Your task to perform on an android device: turn off translation in the chrome app Image 0: 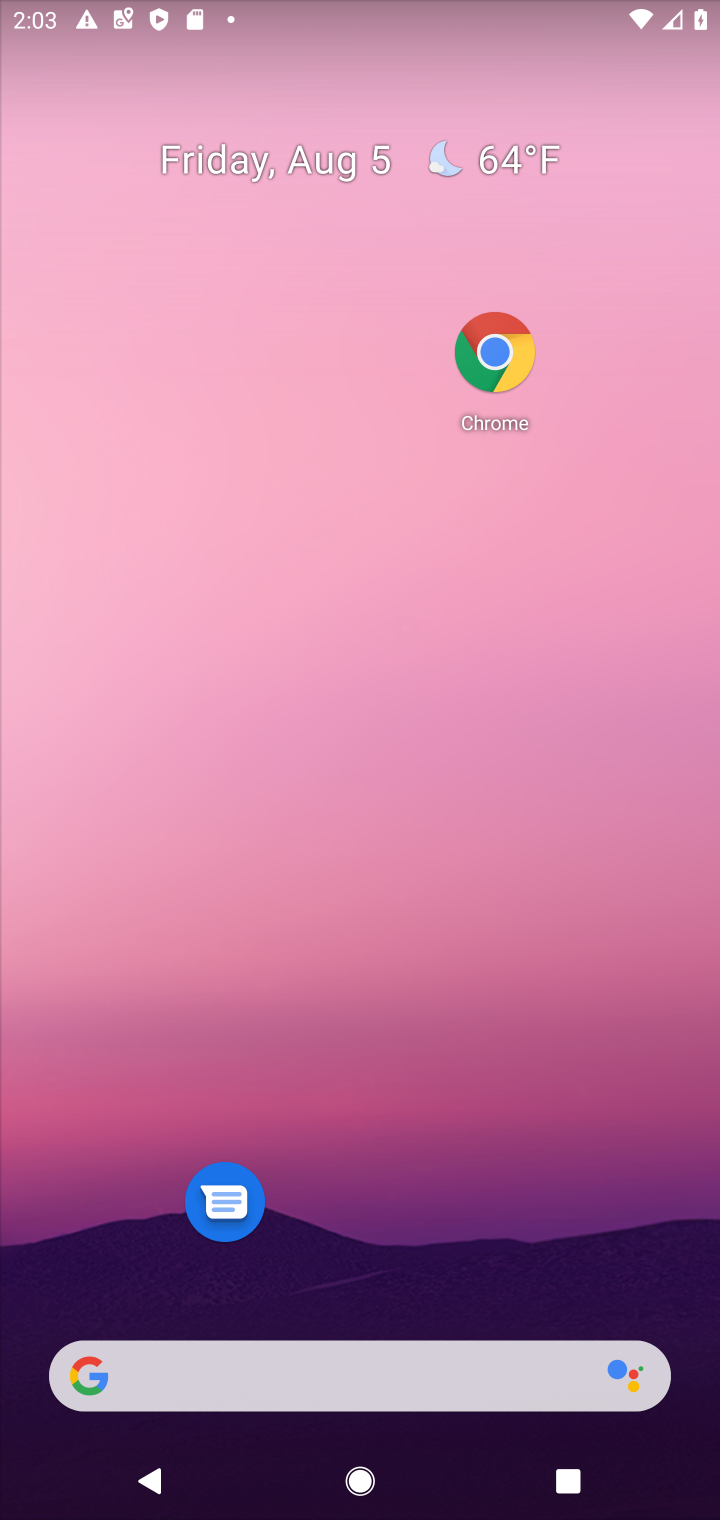
Step 0: drag from (615, 1207) to (425, 292)
Your task to perform on an android device: turn off translation in the chrome app Image 1: 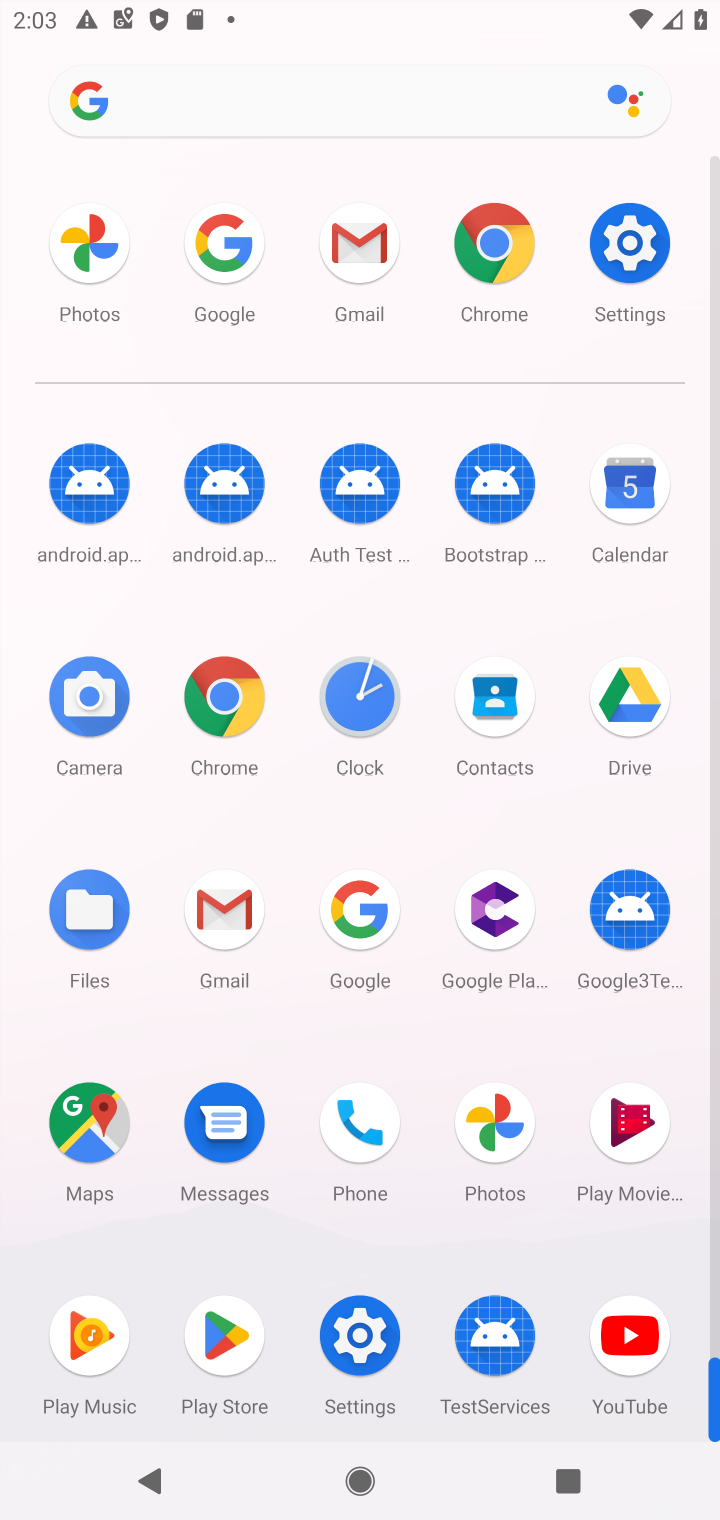
Step 1: click (217, 686)
Your task to perform on an android device: turn off translation in the chrome app Image 2: 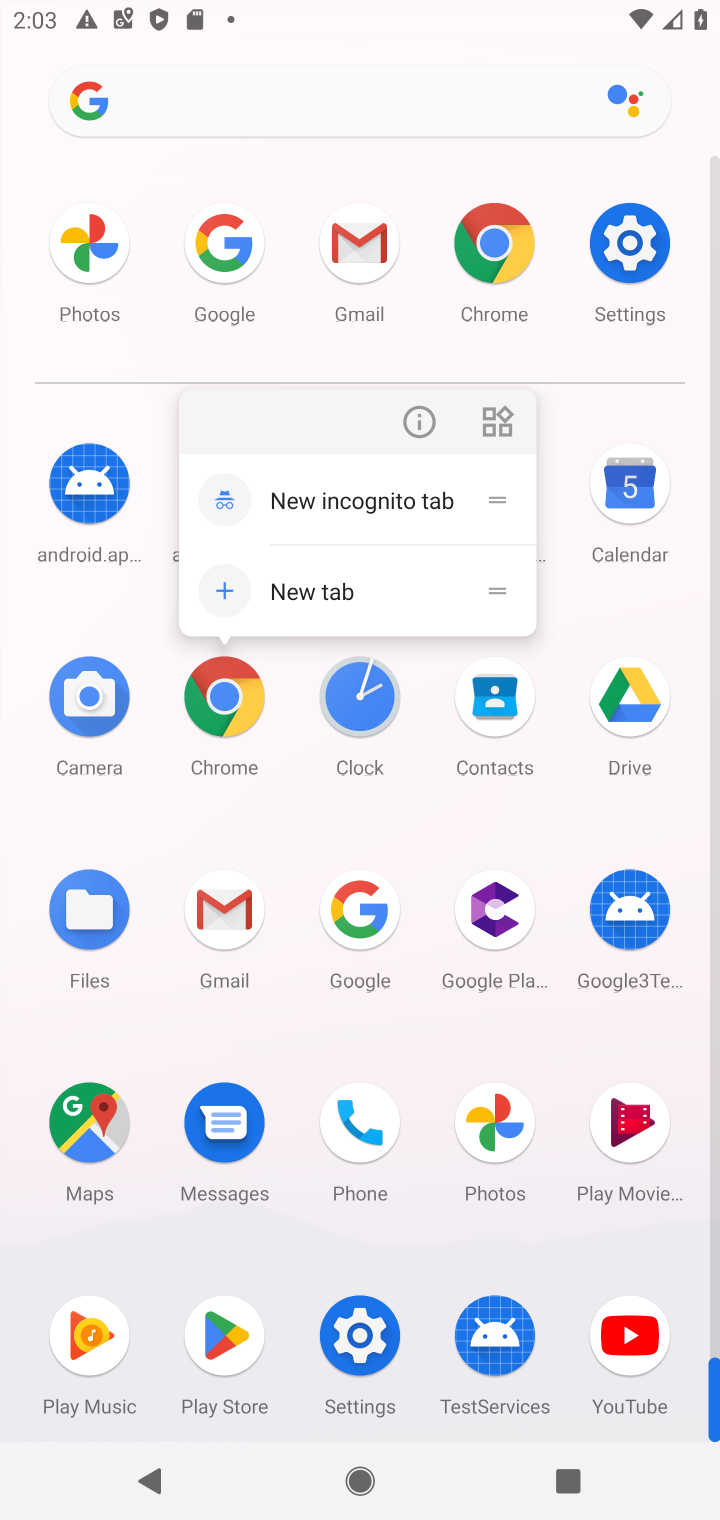
Step 2: click (228, 692)
Your task to perform on an android device: turn off translation in the chrome app Image 3: 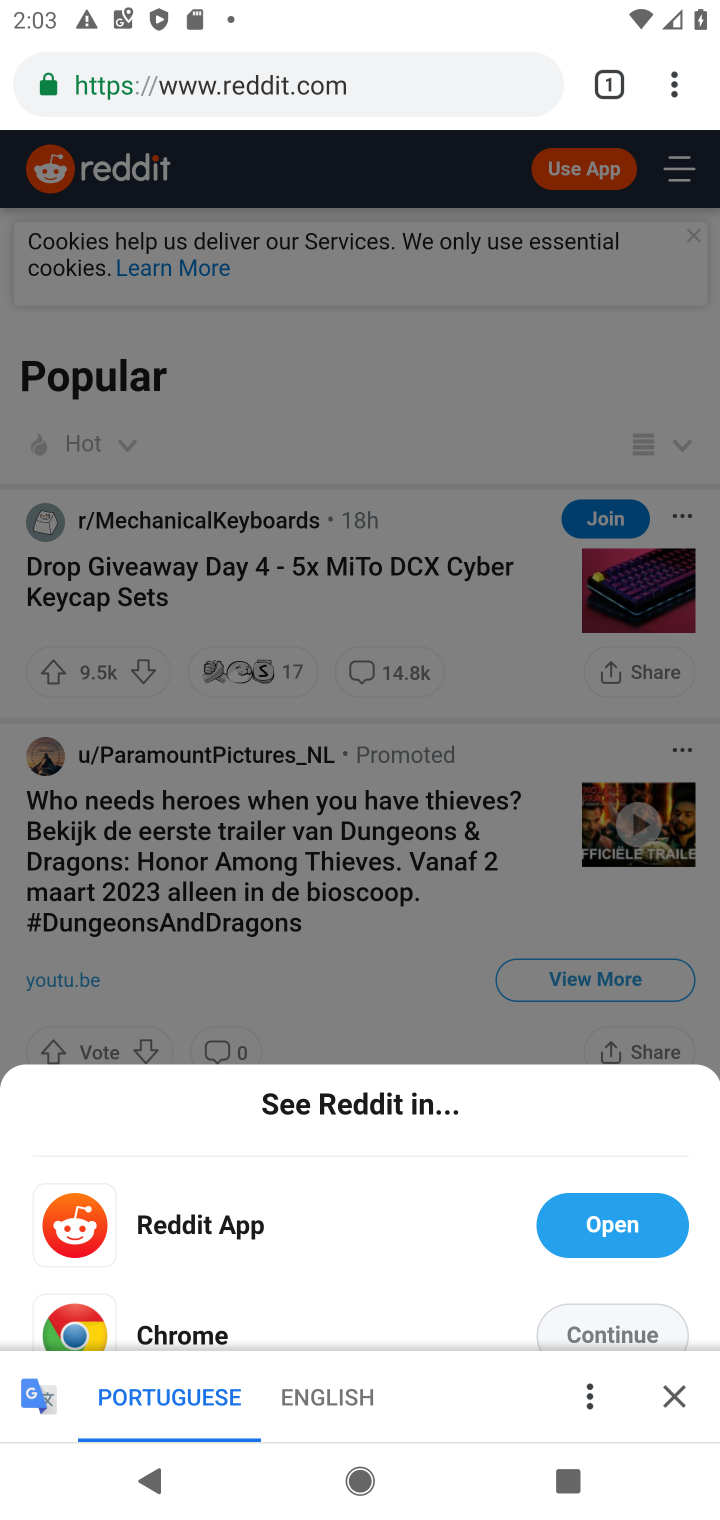
Step 3: drag from (677, 74) to (380, 1010)
Your task to perform on an android device: turn off translation in the chrome app Image 4: 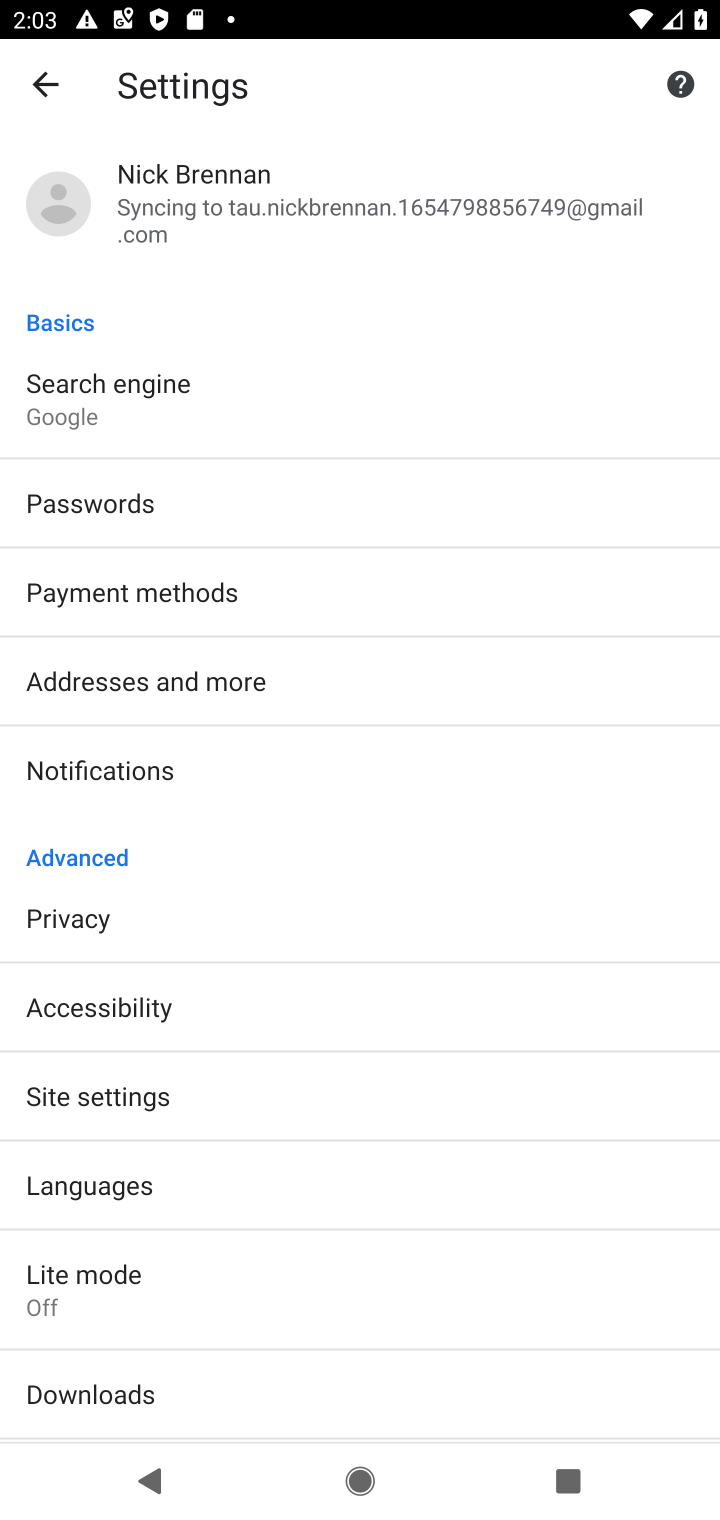
Step 4: click (105, 1180)
Your task to perform on an android device: turn off translation in the chrome app Image 5: 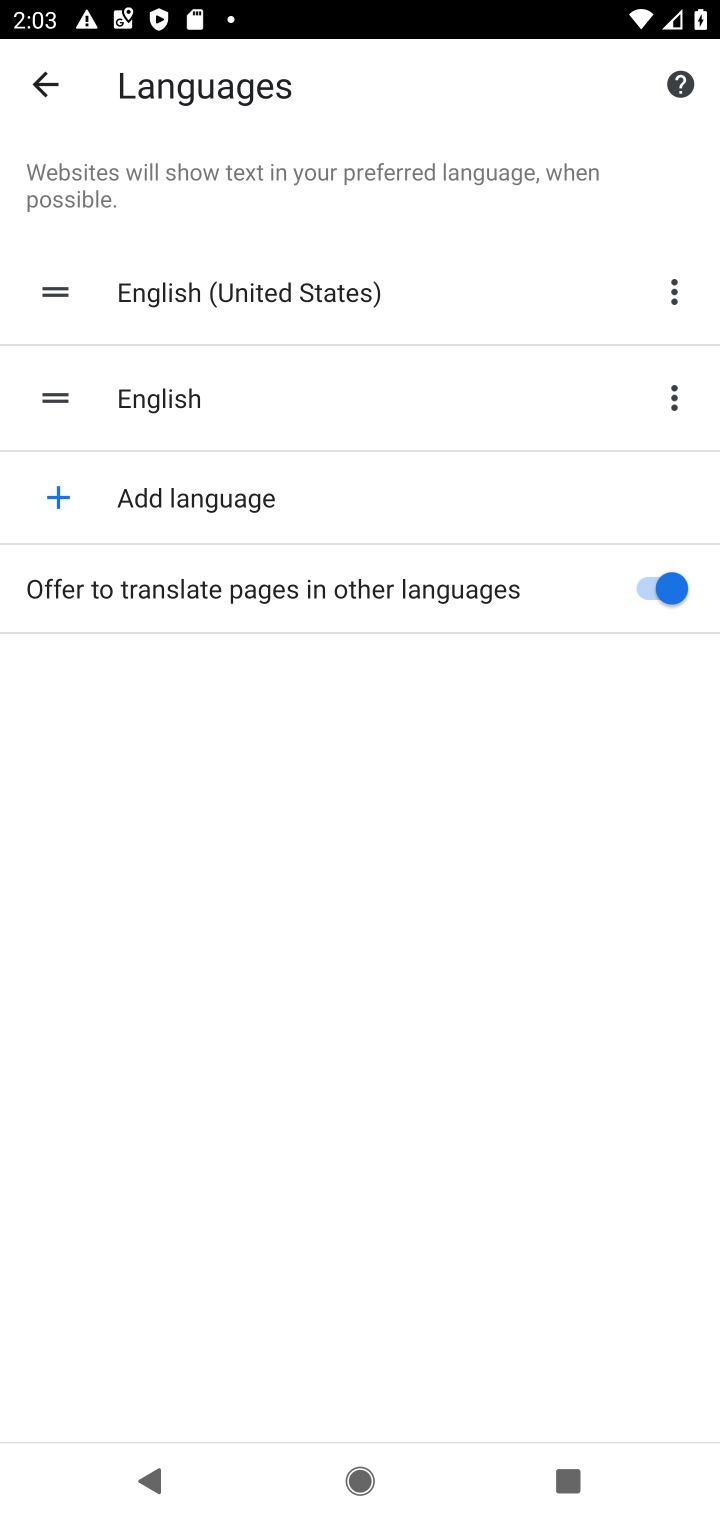
Step 5: click (660, 601)
Your task to perform on an android device: turn off translation in the chrome app Image 6: 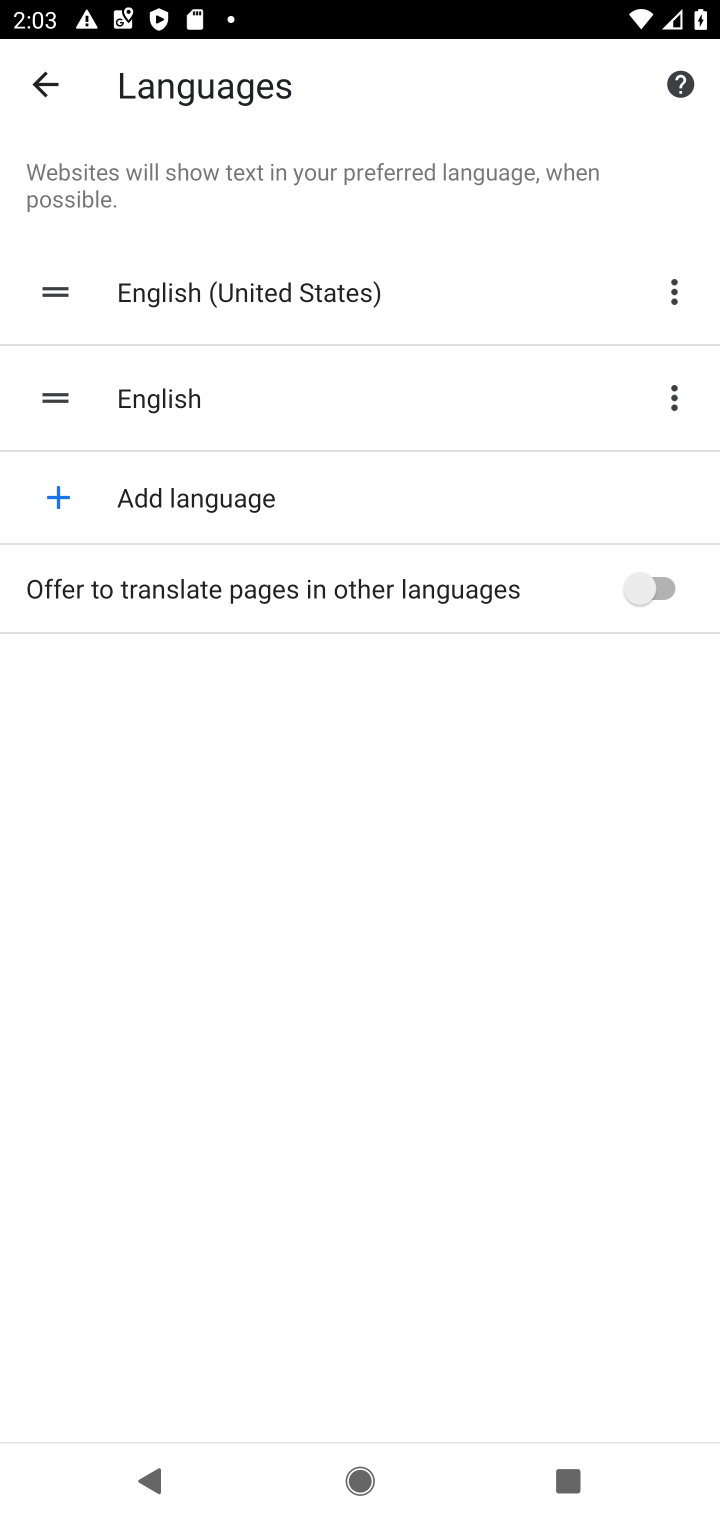
Step 6: task complete